Your task to perform on an android device: Show me popular games on the Play Store Image 0: 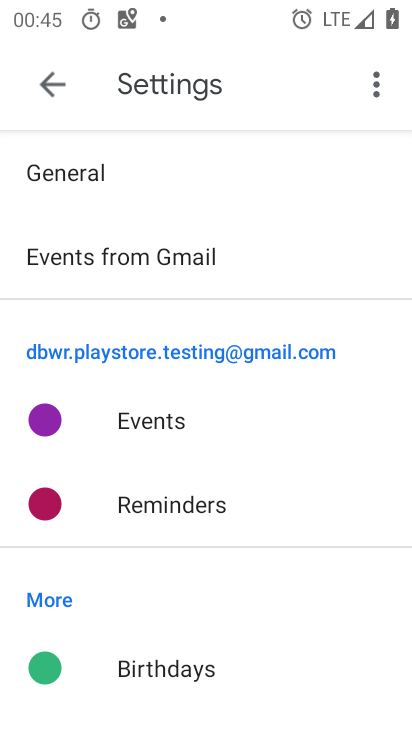
Step 0: press home button
Your task to perform on an android device: Show me popular games on the Play Store Image 1: 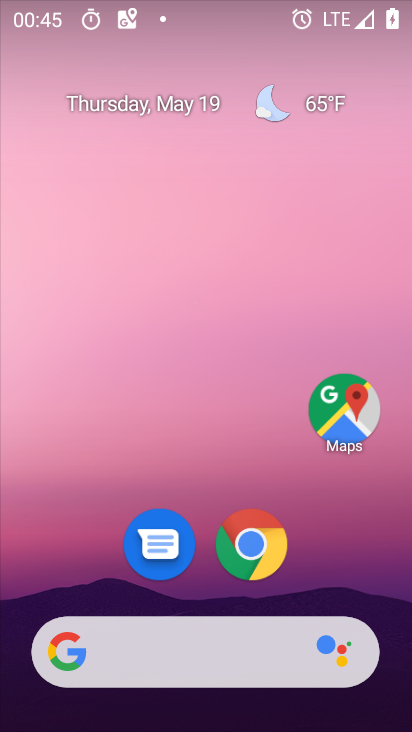
Step 1: drag from (360, 560) to (351, 103)
Your task to perform on an android device: Show me popular games on the Play Store Image 2: 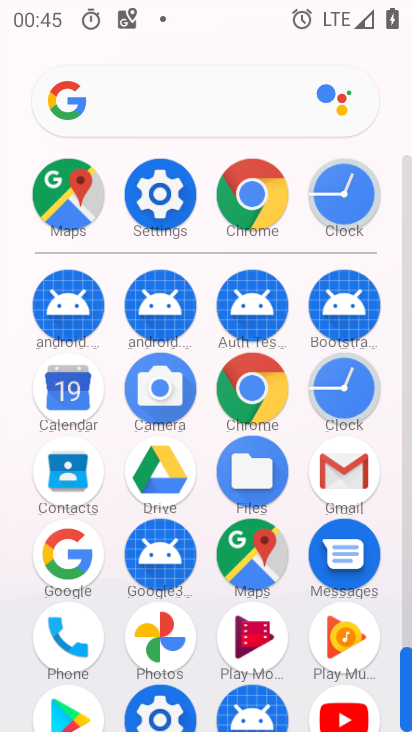
Step 2: drag from (284, 668) to (280, 464)
Your task to perform on an android device: Show me popular games on the Play Store Image 3: 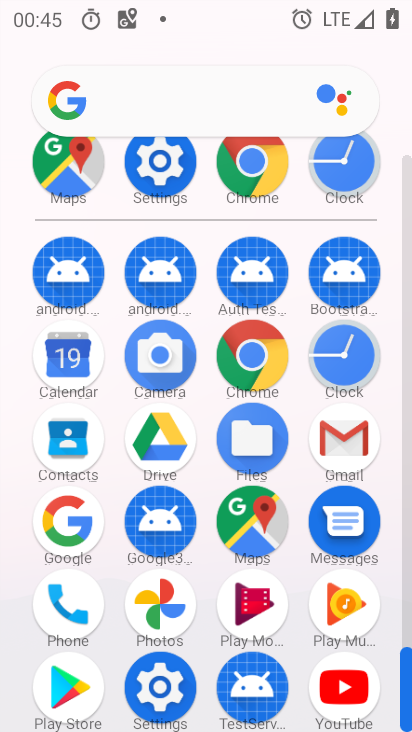
Step 3: click (59, 691)
Your task to perform on an android device: Show me popular games on the Play Store Image 4: 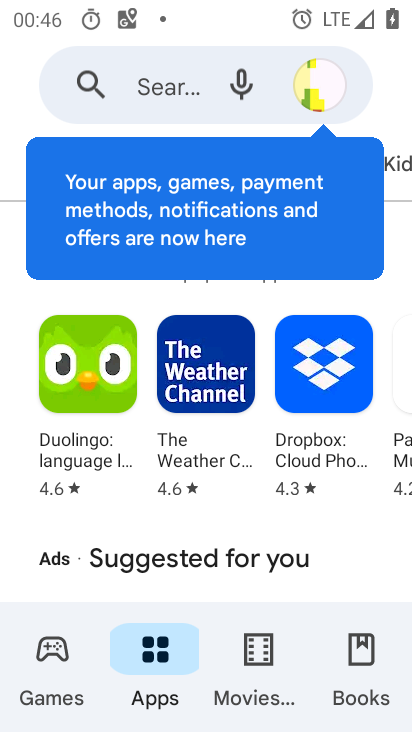
Step 4: click (37, 660)
Your task to perform on an android device: Show me popular games on the Play Store Image 5: 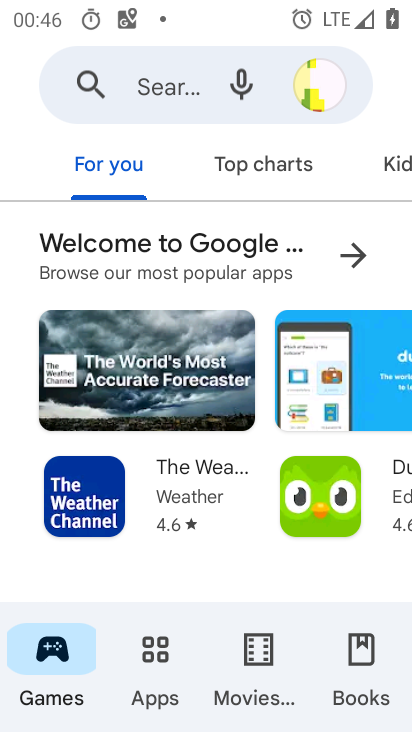
Step 5: drag from (254, 556) to (255, 355)
Your task to perform on an android device: Show me popular games on the Play Store Image 6: 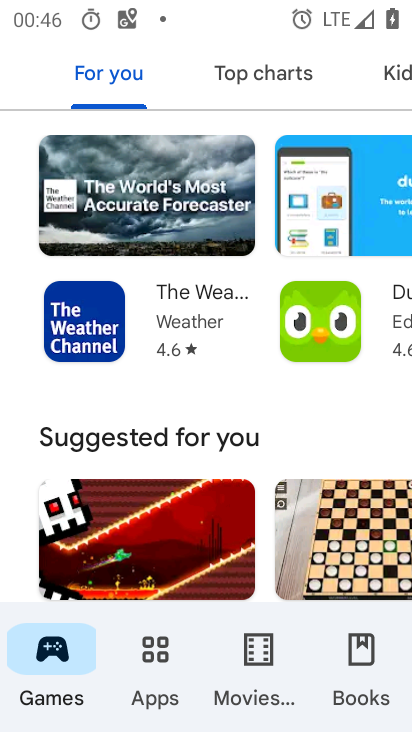
Step 6: drag from (260, 547) to (253, 316)
Your task to perform on an android device: Show me popular games on the Play Store Image 7: 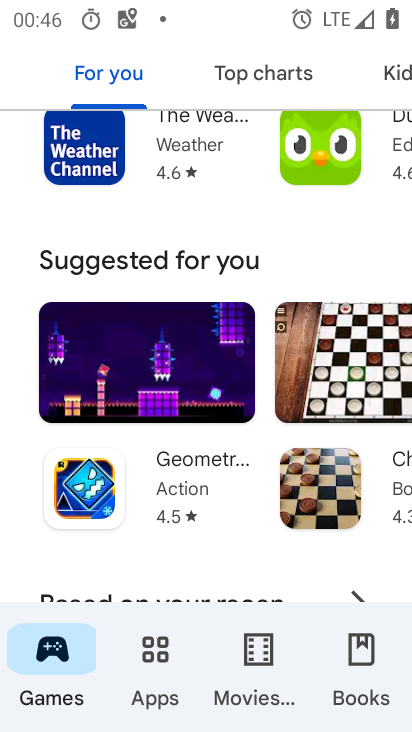
Step 7: drag from (253, 521) to (265, 355)
Your task to perform on an android device: Show me popular games on the Play Store Image 8: 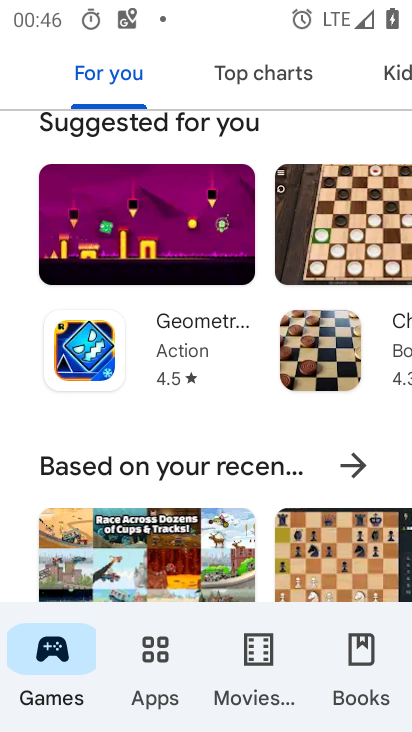
Step 8: drag from (256, 556) to (255, 397)
Your task to perform on an android device: Show me popular games on the Play Store Image 9: 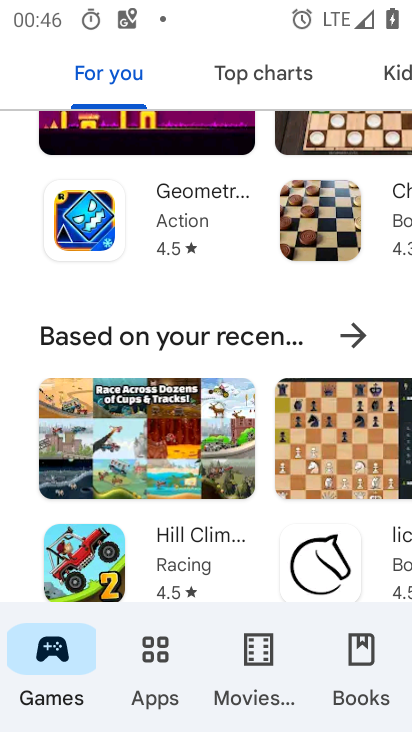
Step 9: drag from (248, 557) to (254, 398)
Your task to perform on an android device: Show me popular games on the Play Store Image 10: 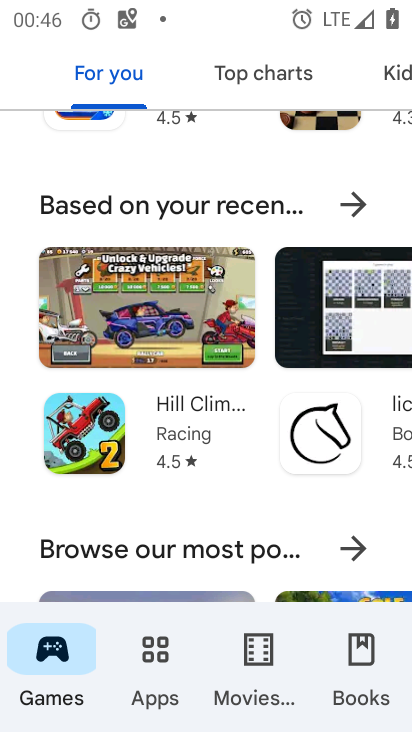
Step 10: drag from (254, 572) to (249, 423)
Your task to perform on an android device: Show me popular games on the Play Store Image 11: 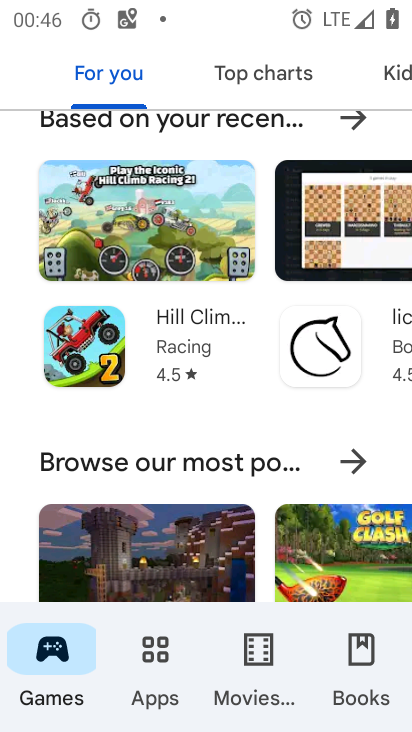
Step 11: drag from (261, 578) to (262, 438)
Your task to perform on an android device: Show me popular games on the Play Store Image 12: 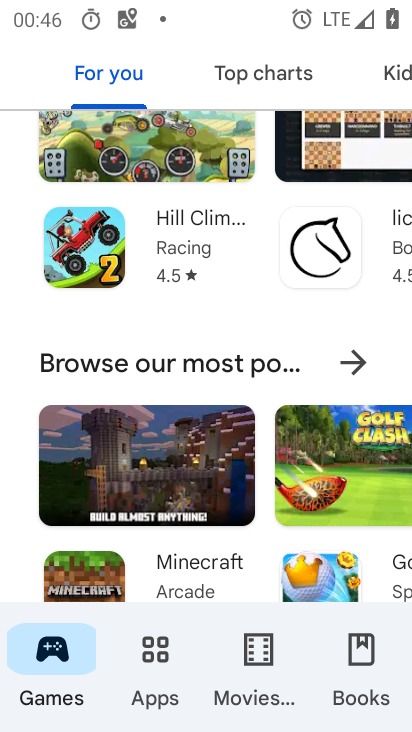
Step 12: drag from (250, 545) to (256, 445)
Your task to perform on an android device: Show me popular games on the Play Store Image 13: 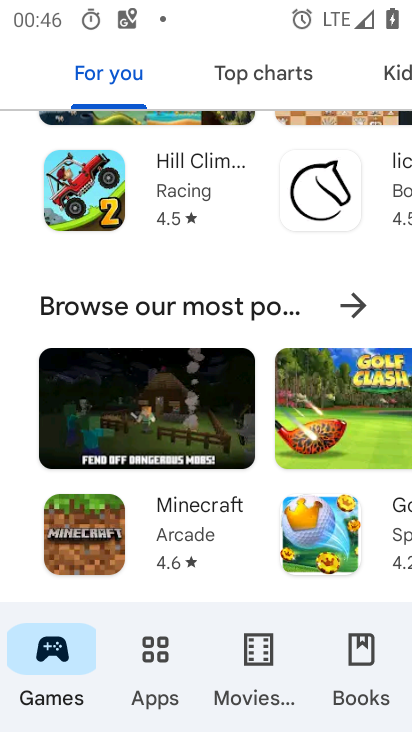
Step 13: drag from (253, 544) to (257, 451)
Your task to perform on an android device: Show me popular games on the Play Store Image 14: 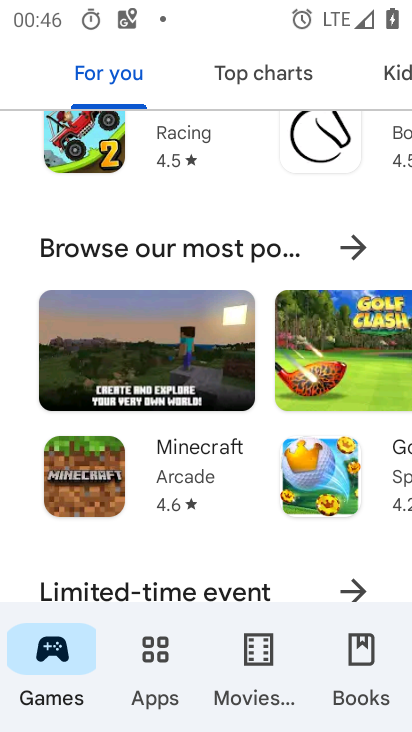
Step 14: click (261, 392)
Your task to perform on an android device: Show me popular games on the Play Store Image 15: 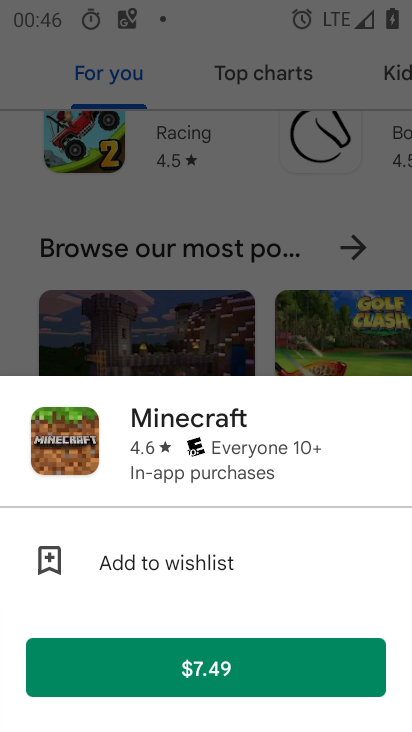
Step 15: task complete